Your task to perform on an android device: Go to settings Image 0: 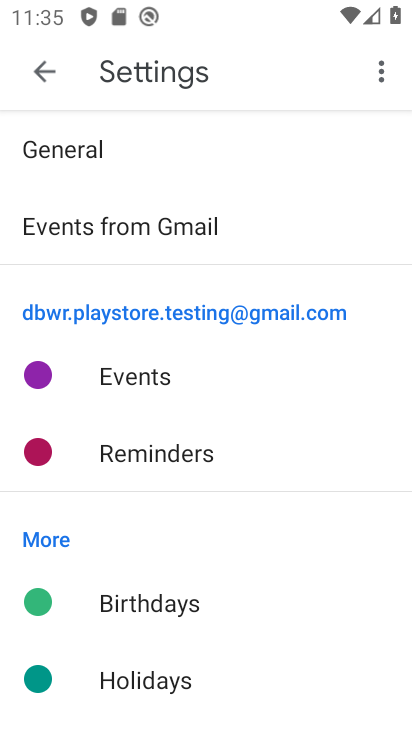
Step 0: press home button
Your task to perform on an android device: Go to settings Image 1: 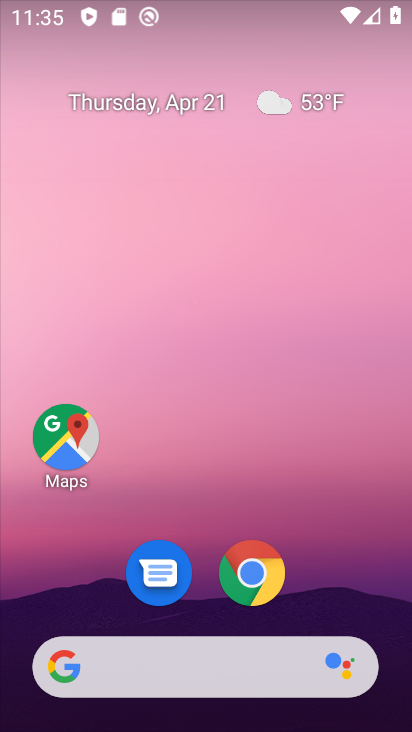
Step 1: drag from (202, 525) to (342, 32)
Your task to perform on an android device: Go to settings Image 2: 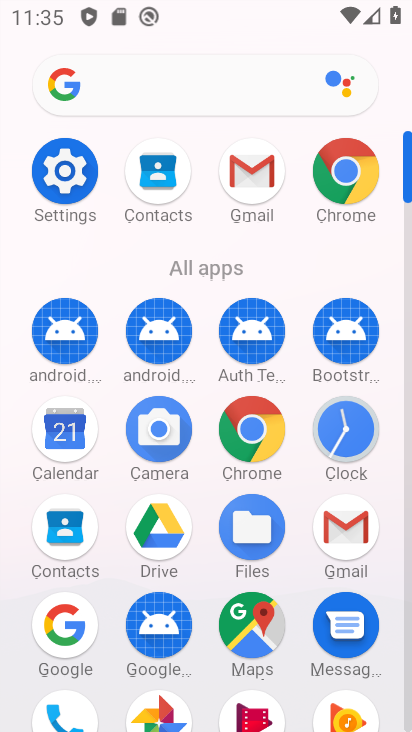
Step 2: click (64, 174)
Your task to perform on an android device: Go to settings Image 3: 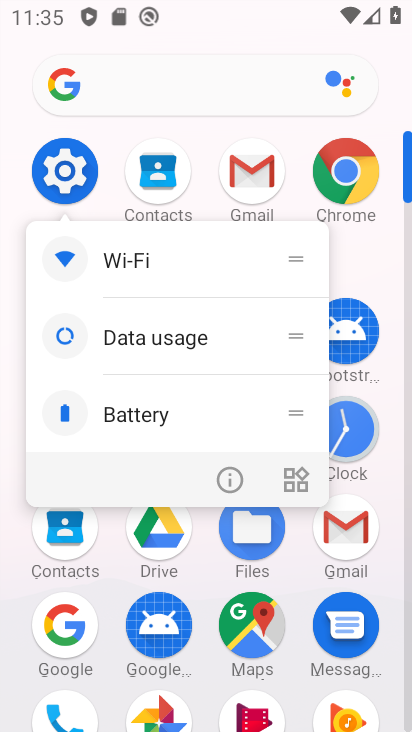
Step 3: click (69, 180)
Your task to perform on an android device: Go to settings Image 4: 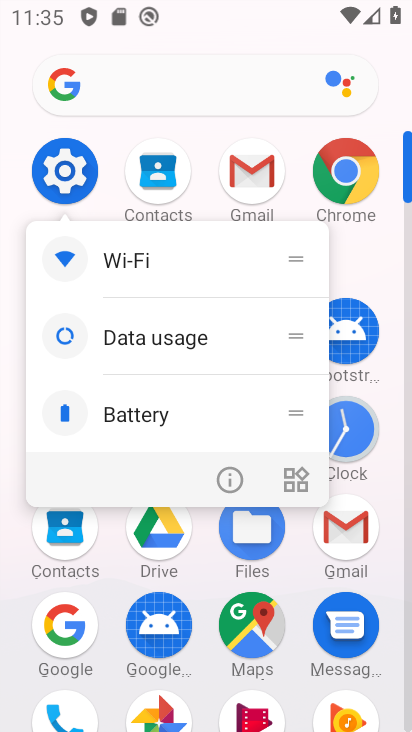
Step 4: click (64, 178)
Your task to perform on an android device: Go to settings Image 5: 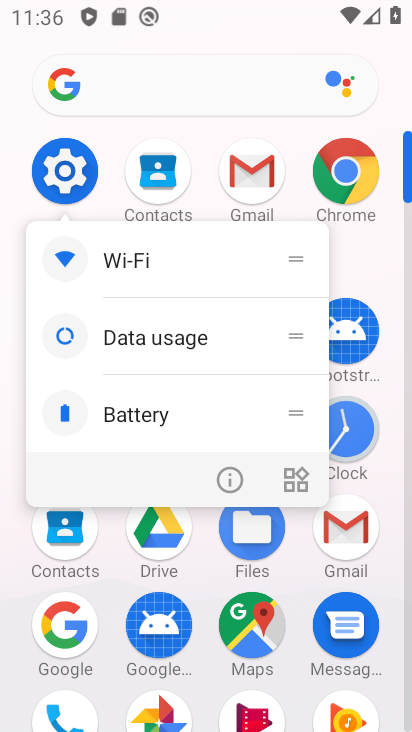
Step 5: click (62, 167)
Your task to perform on an android device: Go to settings Image 6: 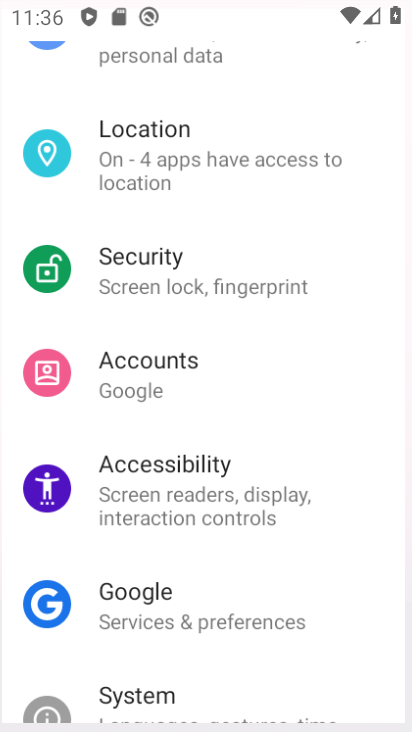
Step 6: click (62, 168)
Your task to perform on an android device: Go to settings Image 7: 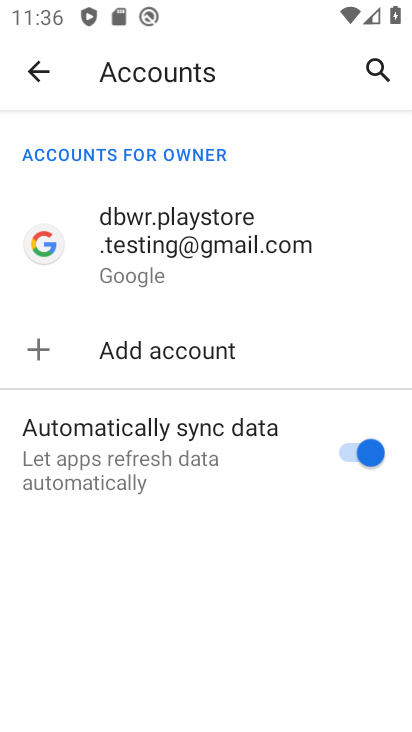
Step 7: click (40, 62)
Your task to perform on an android device: Go to settings Image 8: 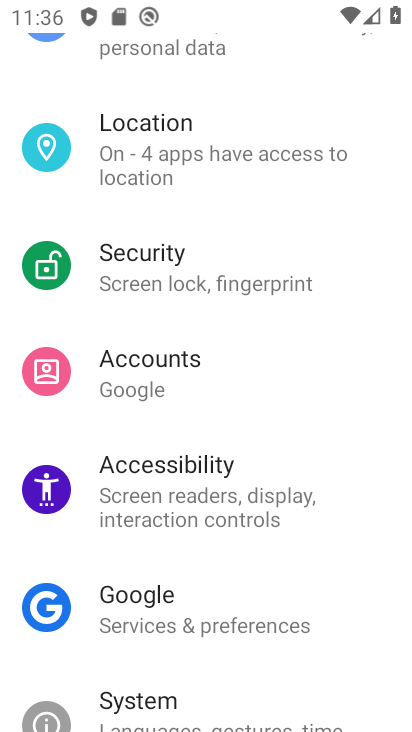
Step 8: task complete